Your task to perform on an android device: allow cookies in the chrome app Image 0: 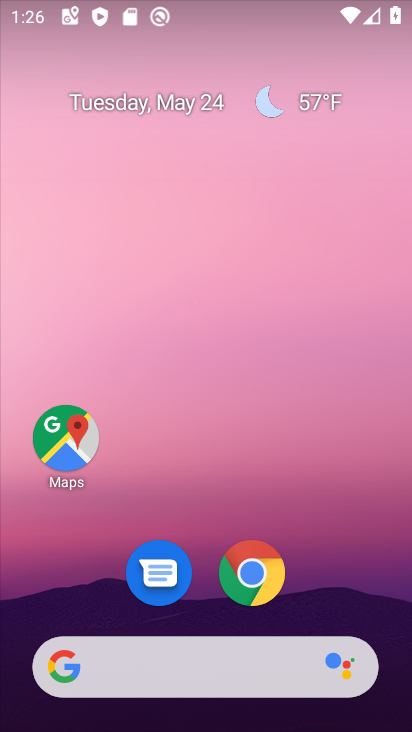
Step 0: click (254, 567)
Your task to perform on an android device: allow cookies in the chrome app Image 1: 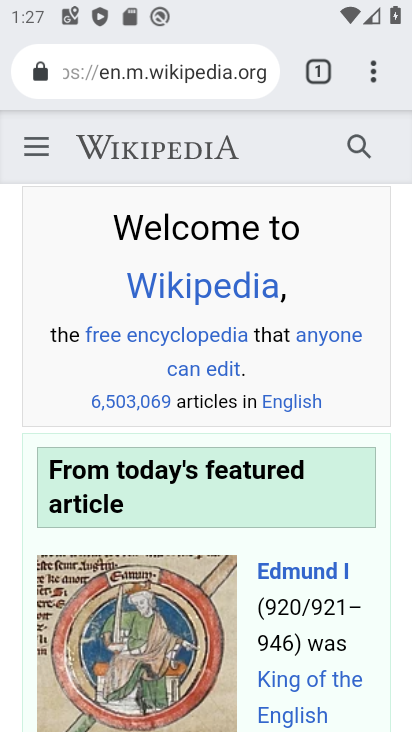
Step 1: click (375, 87)
Your task to perform on an android device: allow cookies in the chrome app Image 2: 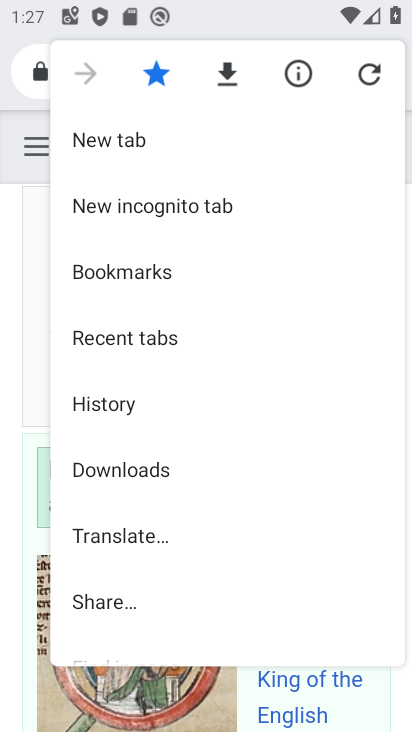
Step 2: drag from (197, 551) to (205, 276)
Your task to perform on an android device: allow cookies in the chrome app Image 3: 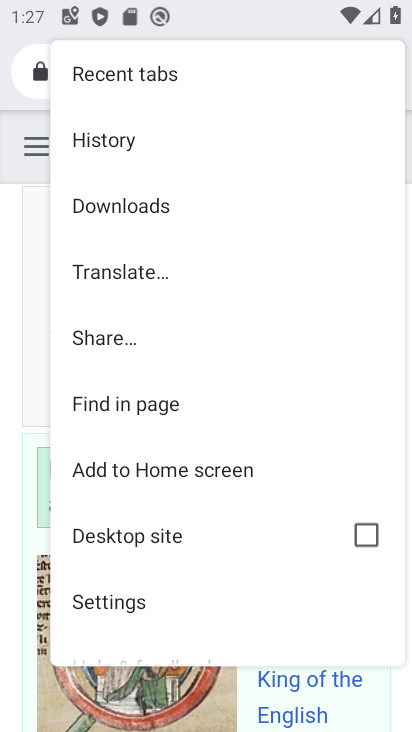
Step 3: click (115, 603)
Your task to perform on an android device: allow cookies in the chrome app Image 4: 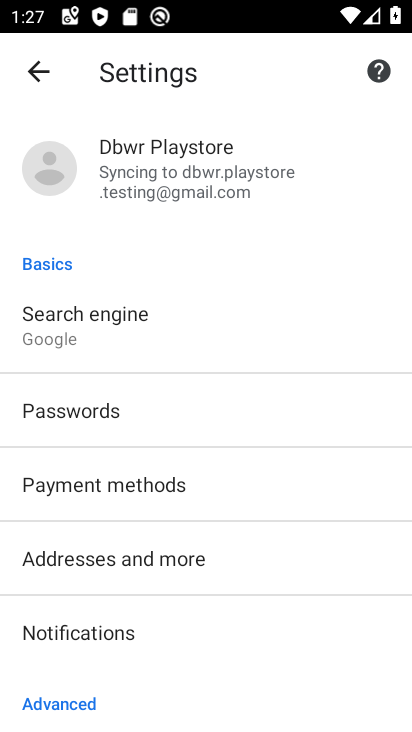
Step 4: drag from (289, 655) to (290, 392)
Your task to perform on an android device: allow cookies in the chrome app Image 5: 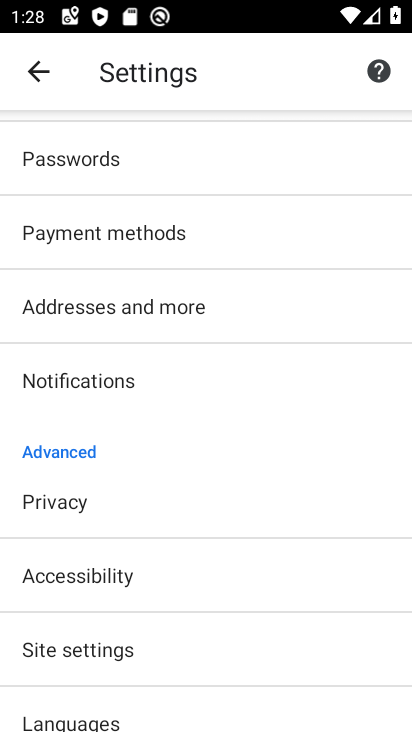
Step 5: drag from (244, 593) to (232, 432)
Your task to perform on an android device: allow cookies in the chrome app Image 6: 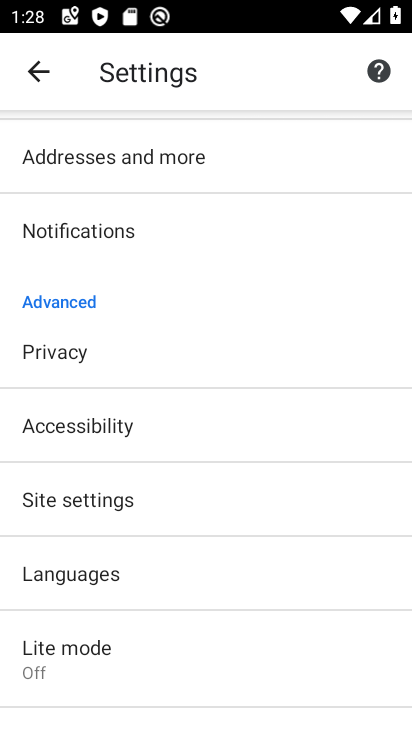
Step 6: click (223, 506)
Your task to perform on an android device: allow cookies in the chrome app Image 7: 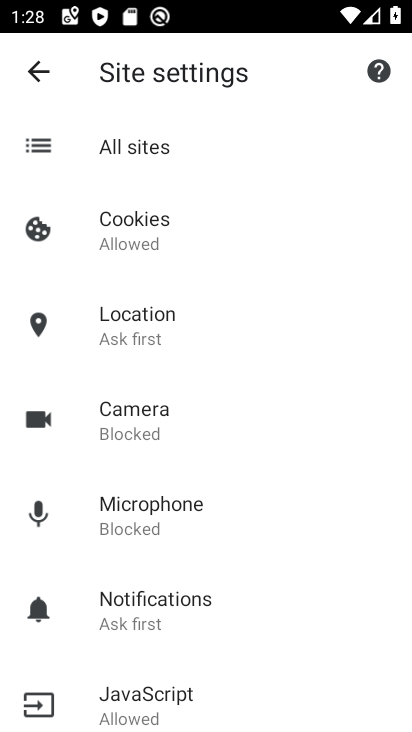
Step 7: task complete